Your task to perform on an android device: Search for pizza restaurants on Maps Image 0: 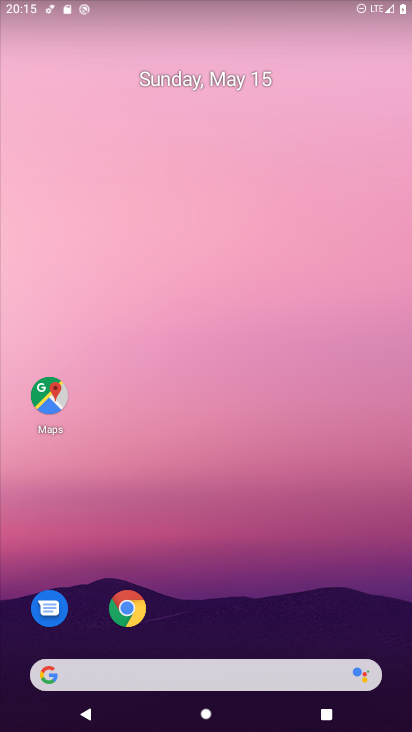
Step 0: click (53, 402)
Your task to perform on an android device: Search for pizza restaurants on Maps Image 1: 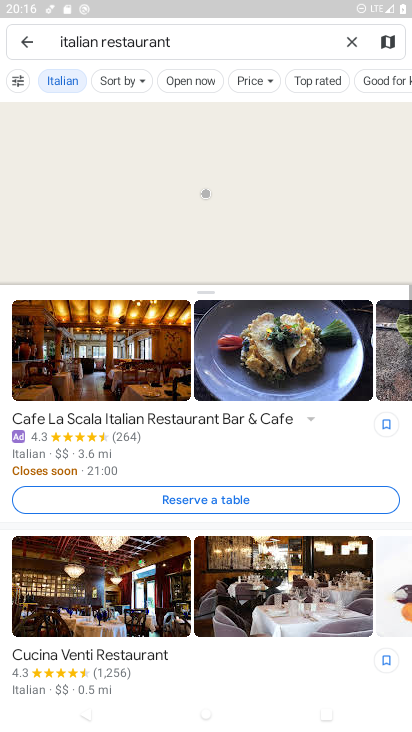
Step 1: click (225, 42)
Your task to perform on an android device: Search for pizza restaurants on Maps Image 2: 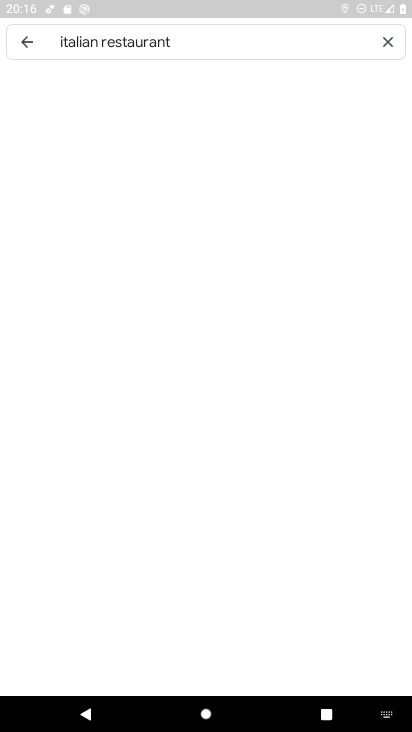
Step 2: click (388, 39)
Your task to perform on an android device: Search for pizza restaurants on Maps Image 3: 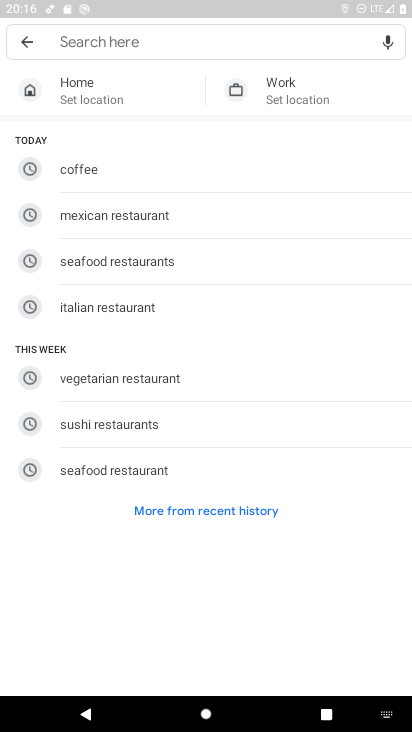
Step 3: type "pizza restaurent"
Your task to perform on an android device: Search for pizza restaurants on Maps Image 4: 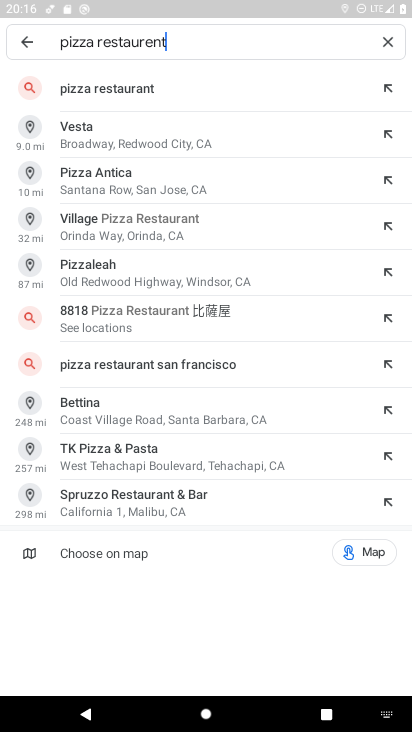
Step 4: click (141, 87)
Your task to perform on an android device: Search for pizza restaurants on Maps Image 5: 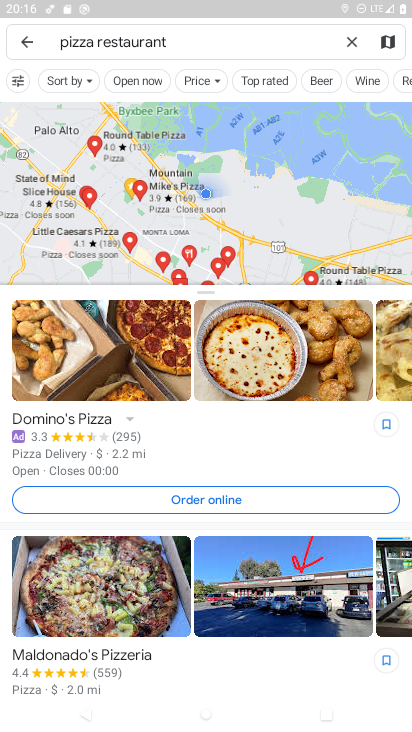
Step 5: task complete